Your task to perform on an android device: create a new album in the google photos Image 0: 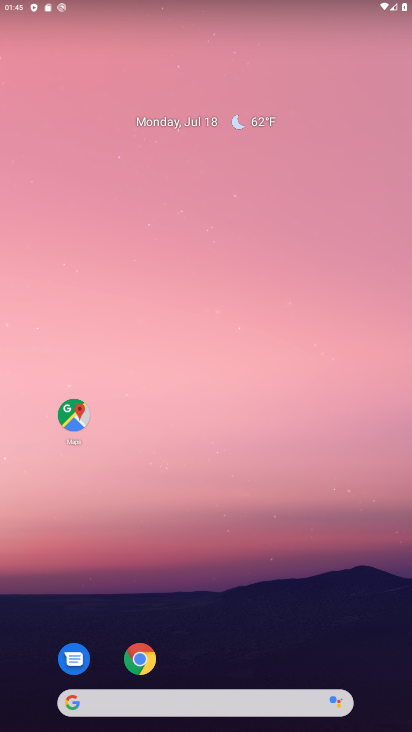
Step 0: drag from (280, 620) to (178, 92)
Your task to perform on an android device: create a new album in the google photos Image 1: 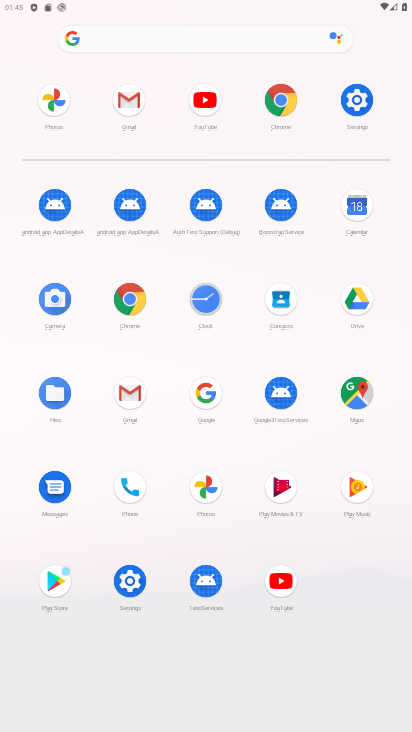
Step 1: click (210, 481)
Your task to perform on an android device: create a new album in the google photos Image 2: 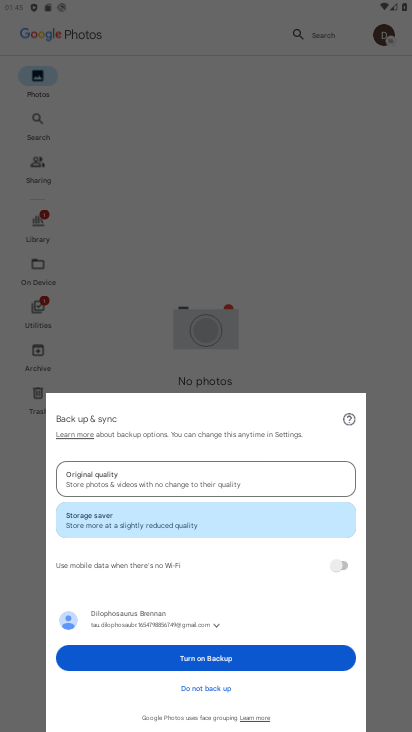
Step 2: click (260, 661)
Your task to perform on an android device: create a new album in the google photos Image 3: 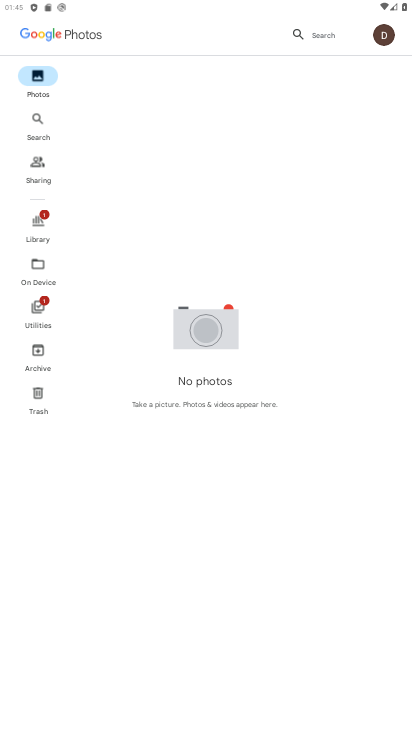
Step 3: click (44, 222)
Your task to perform on an android device: create a new album in the google photos Image 4: 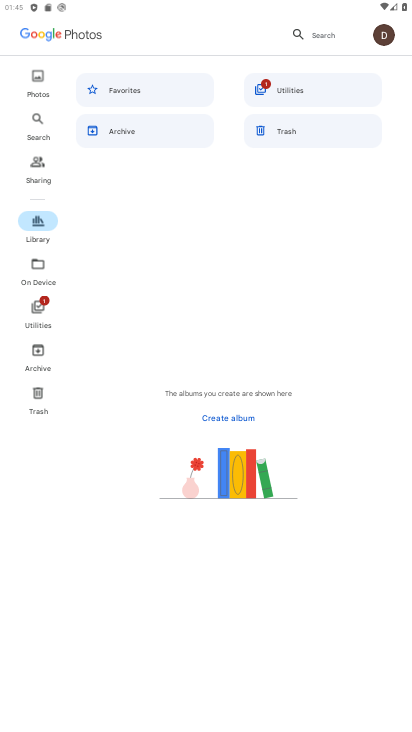
Step 4: click (236, 421)
Your task to perform on an android device: create a new album in the google photos Image 5: 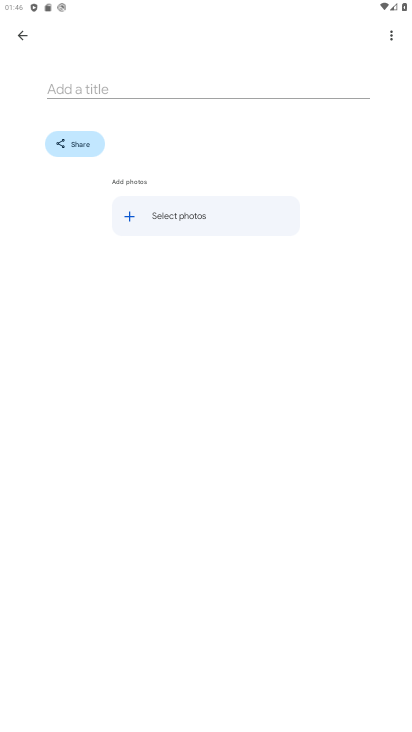
Step 5: click (199, 83)
Your task to perform on an android device: create a new album in the google photos Image 6: 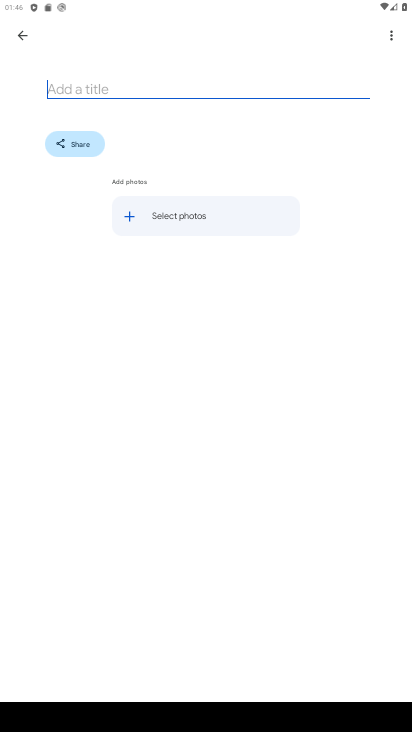
Step 6: type "hhjjh"
Your task to perform on an android device: create a new album in the google photos Image 7: 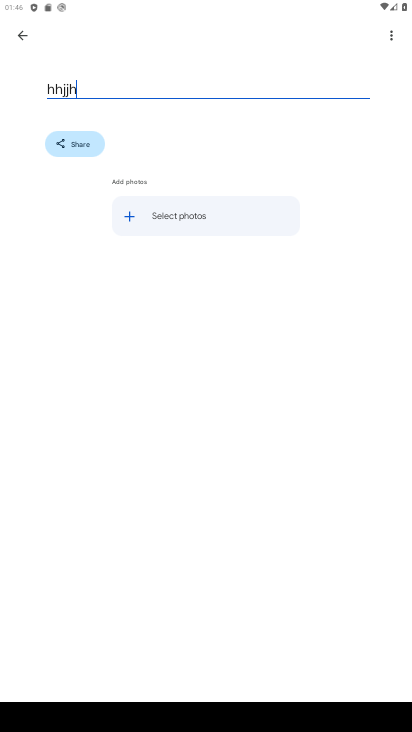
Step 7: type ""
Your task to perform on an android device: create a new album in the google photos Image 8: 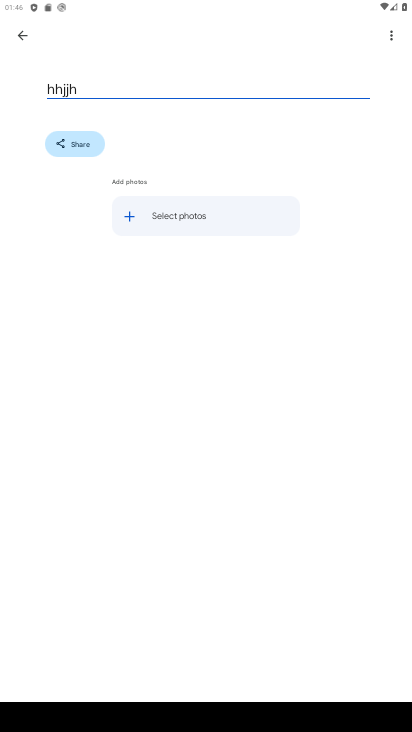
Step 8: task complete